Your task to perform on an android device: Open Maps and search for coffee Image 0: 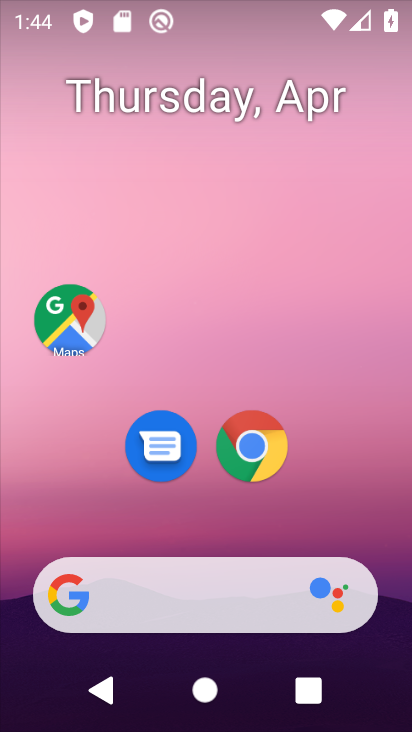
Step 0: click (389, 109)
Your task to perform on an android device: Open Maps and search for coffee Image 1: 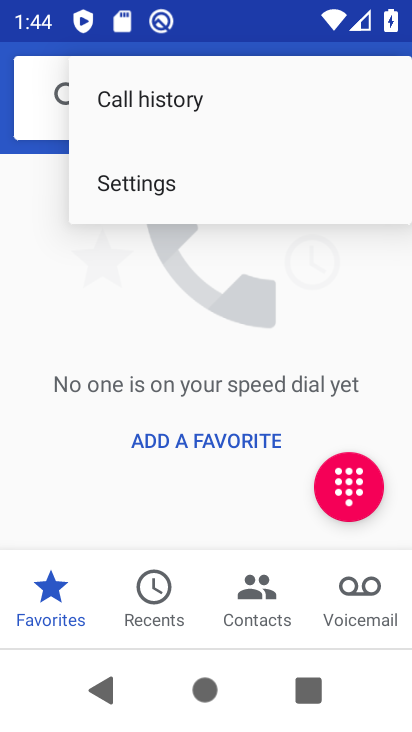
Step 1: click (280, 249)
Your task to perform on an android device: Open Maps and search for coffee Image 2: 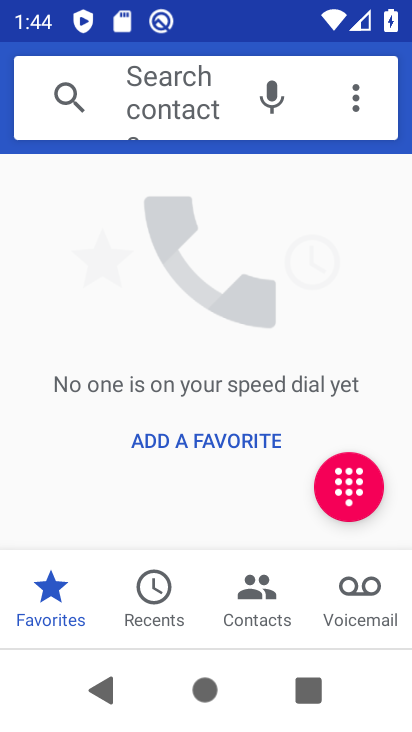
Step 2: press home button
Your task to perform on an android device: Open Maps and search for coffee Image 3: 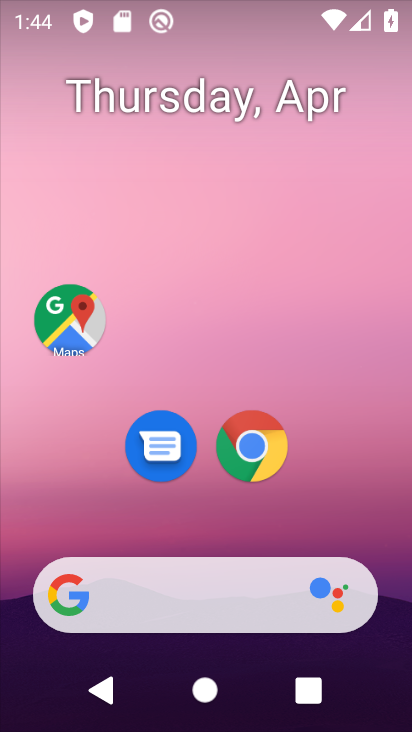
Step 3: click (45, 333)
Your task to perform on an android device: Open Maps and search for coffee Image 4: 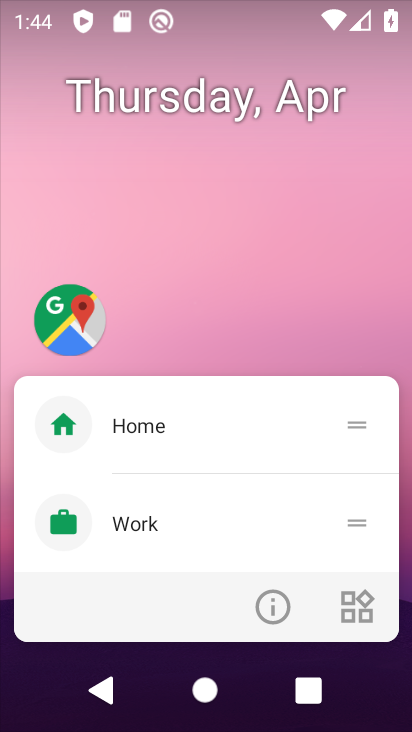
Step 4: click (73, 321)
Your task to perform on an android device: Open Maps and search for coffee Image 5: 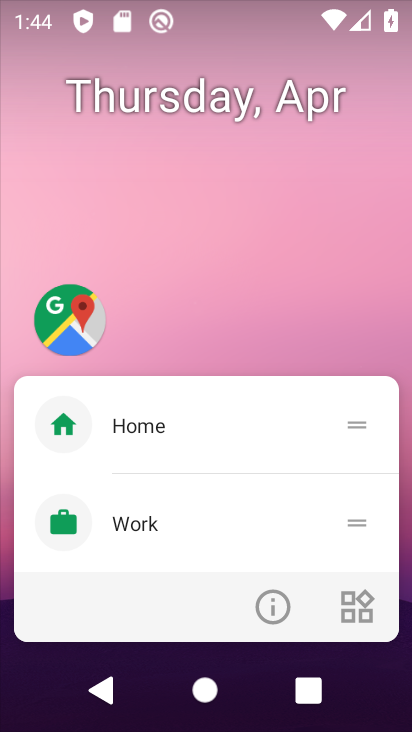
Step 5: click (80, 325)
Your task to perform on an android device: Open Maps and search for coffee Image 6: 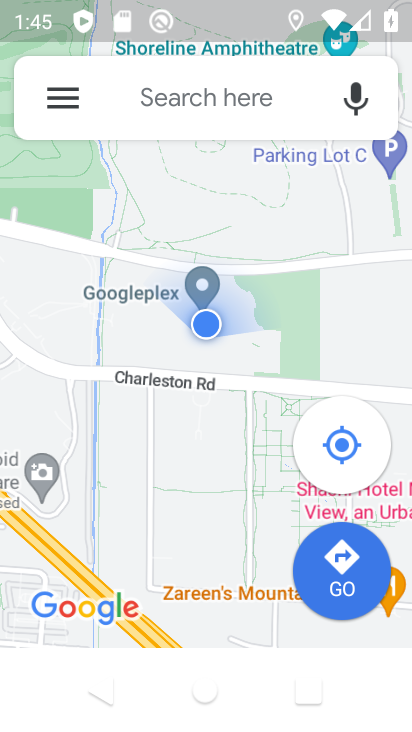
Step 6: click (213, 116)
Your task to perform on an android device: Open Maps and search for coffee Image 7: 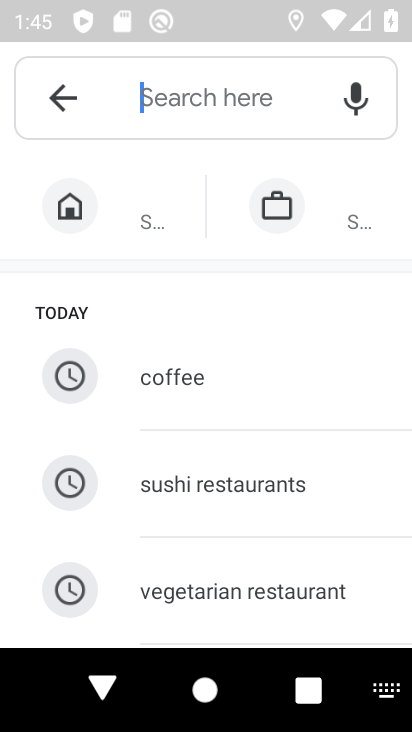
Step 7: click (169, 377)
Your task to perform on an android device: Open Maps and search for coffee Image 8: 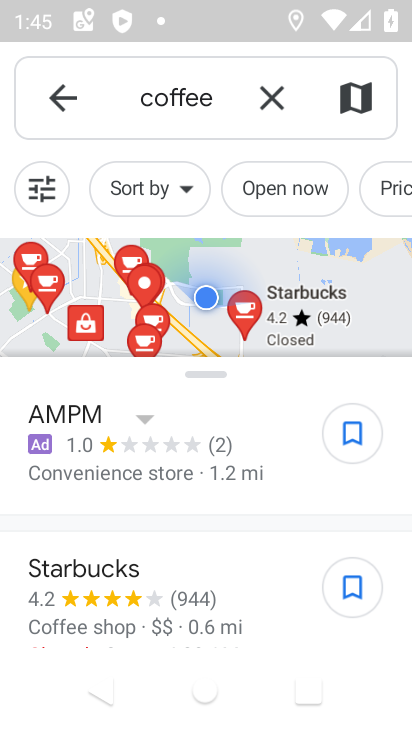
Step 8: task complete